Your task to perform on an android device: What is the news today? Image 0: 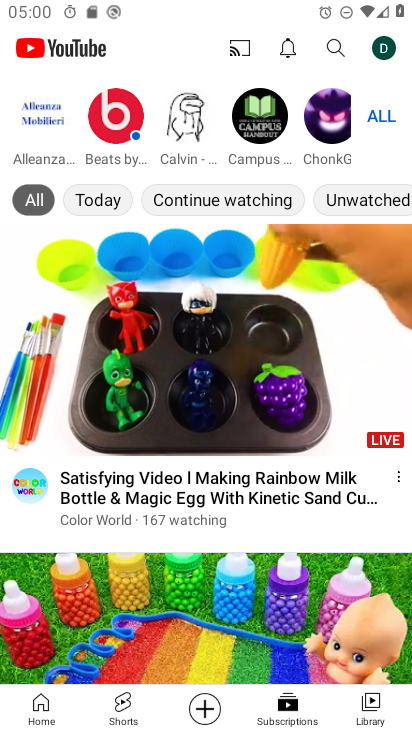
Step 0: press back button
Your task to perform on an android device: What is the news today? Image 1: 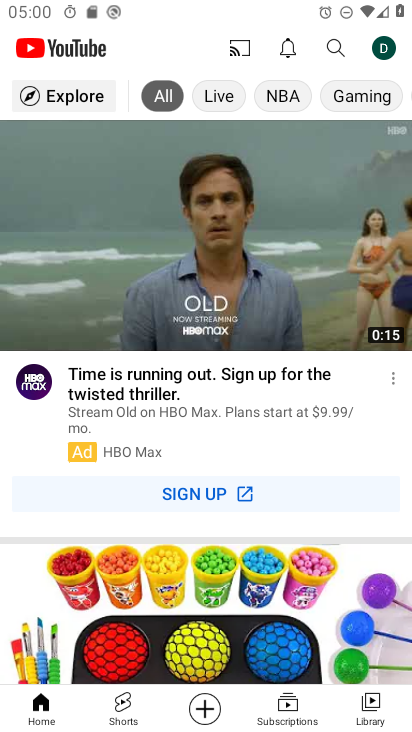
Step 1: press home button
Your task to perform on an android device: What is the news today? Image 2: 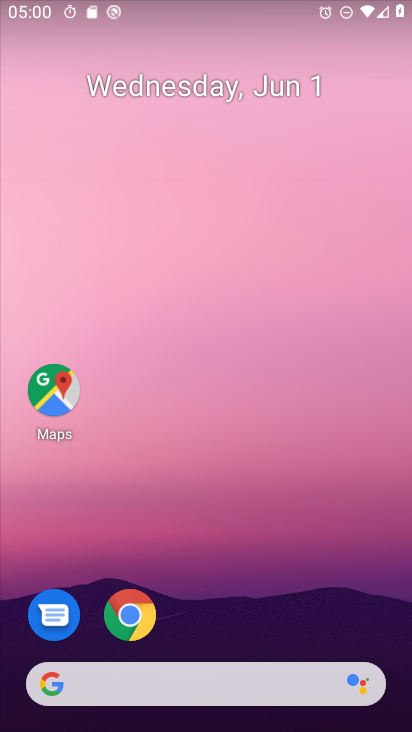
Step 2: drag from (294, 597) to (379, 3)
Your task to perform on an android device: What is the news today? Image 3: 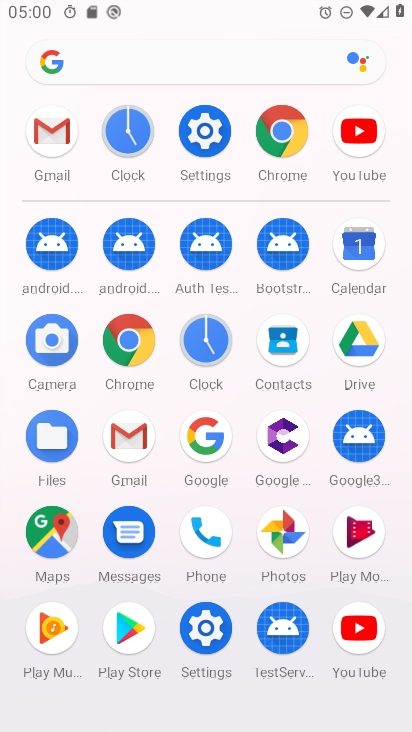
Step 3: click (129, 338)
Your task to perform on an android device: What is the news today? Image 4: 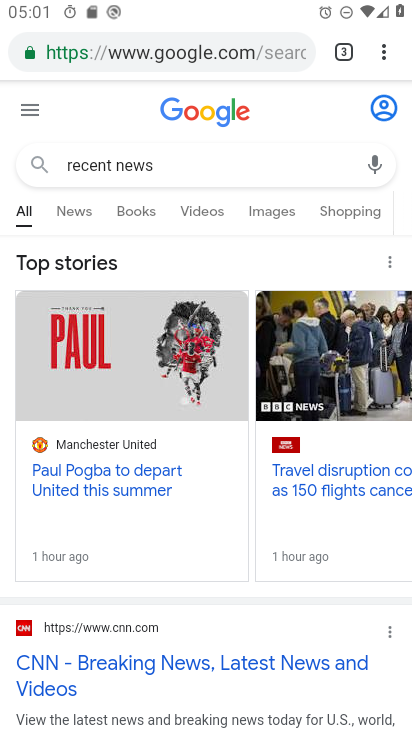
Step 4: click (274, 45)
Your task to perform on an android device: What is the news today? Image 5: 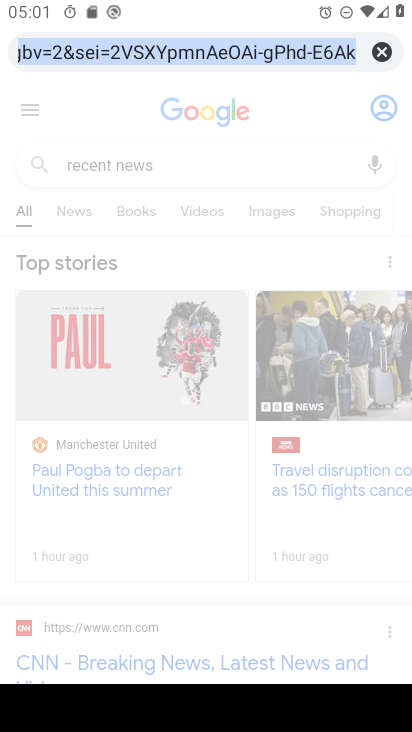
Step 5: type "news today"
Your task to perform on an android device: What is the news today? Image 6: 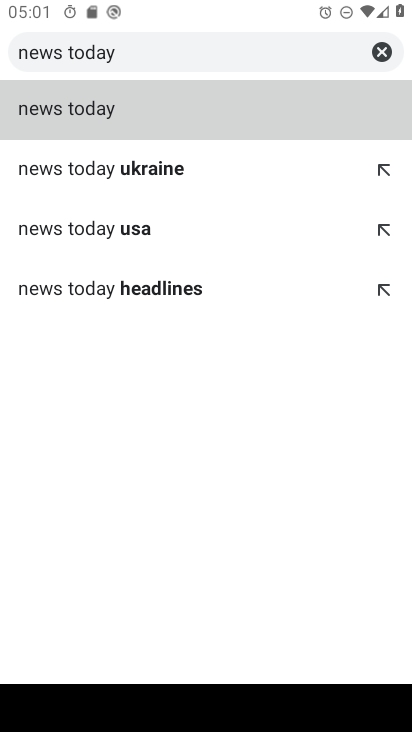
Step 6: click (153, 116)
Your task to perform on an android device: What is the news today? Image 7: 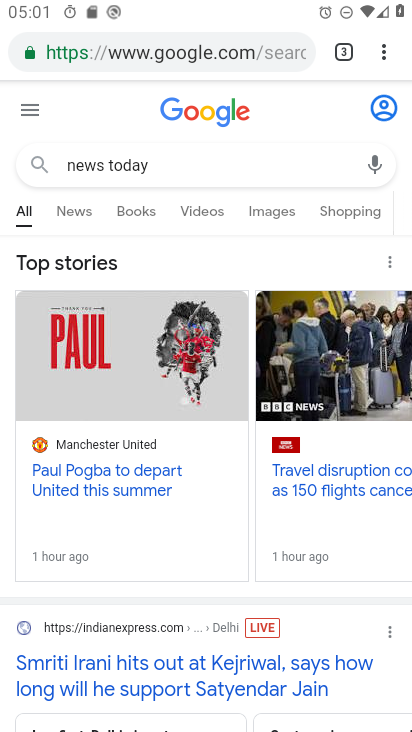
Step 7: task complete